Your task to perform on an android device: uninstall "Contacts" Image 0: 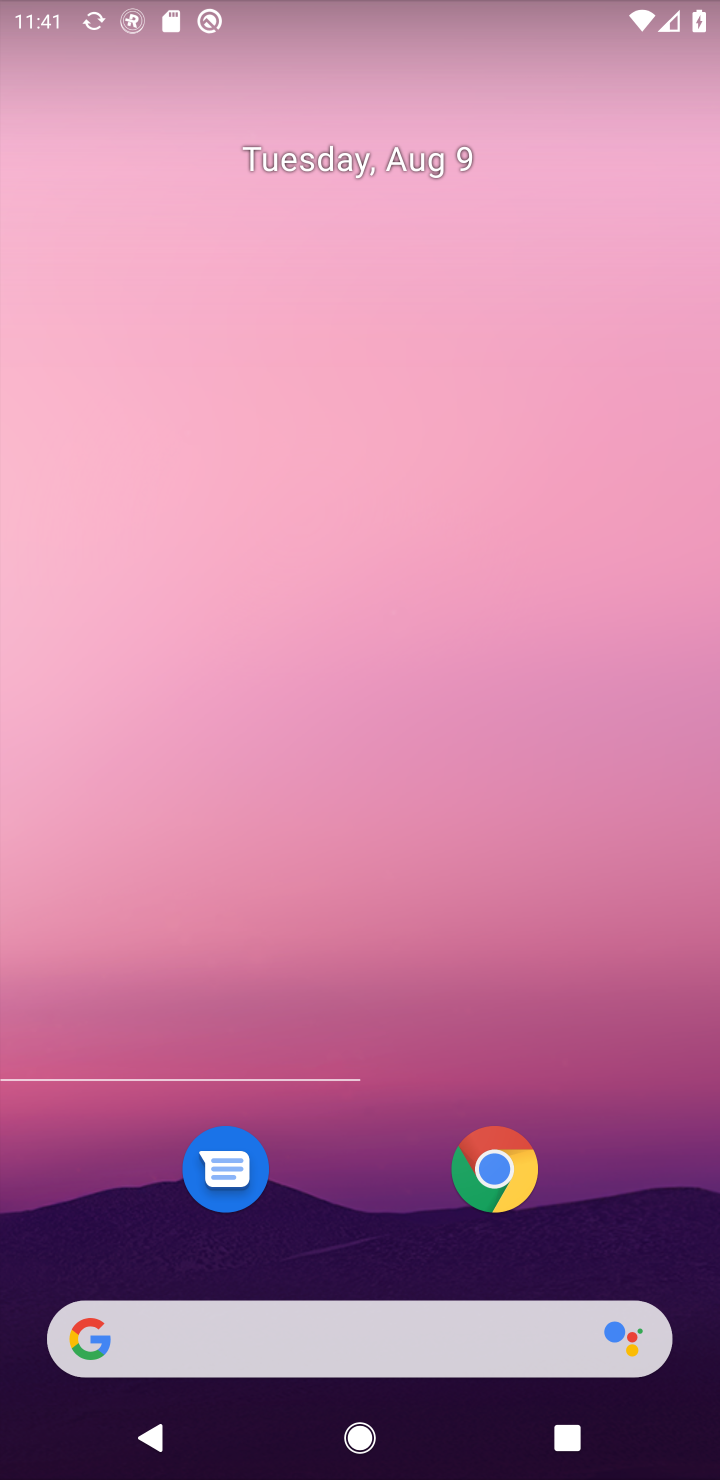
Step 0: press home button
Your task to perform on an android device: uninstall "Contacts" Image 1: 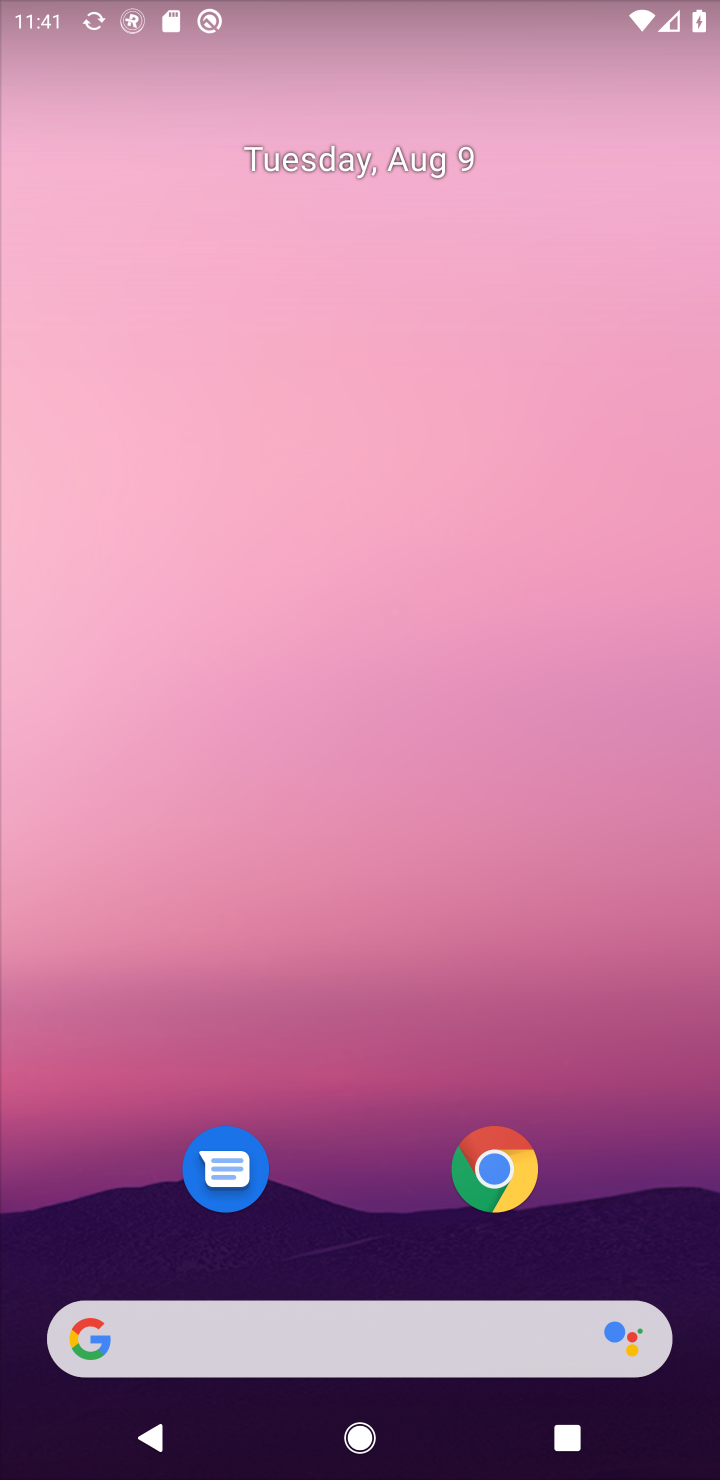
Step 1: drag from (618, 1117) to (598, 140)
Your task to perform on an android device: uninstall "Contacts" Image 2: 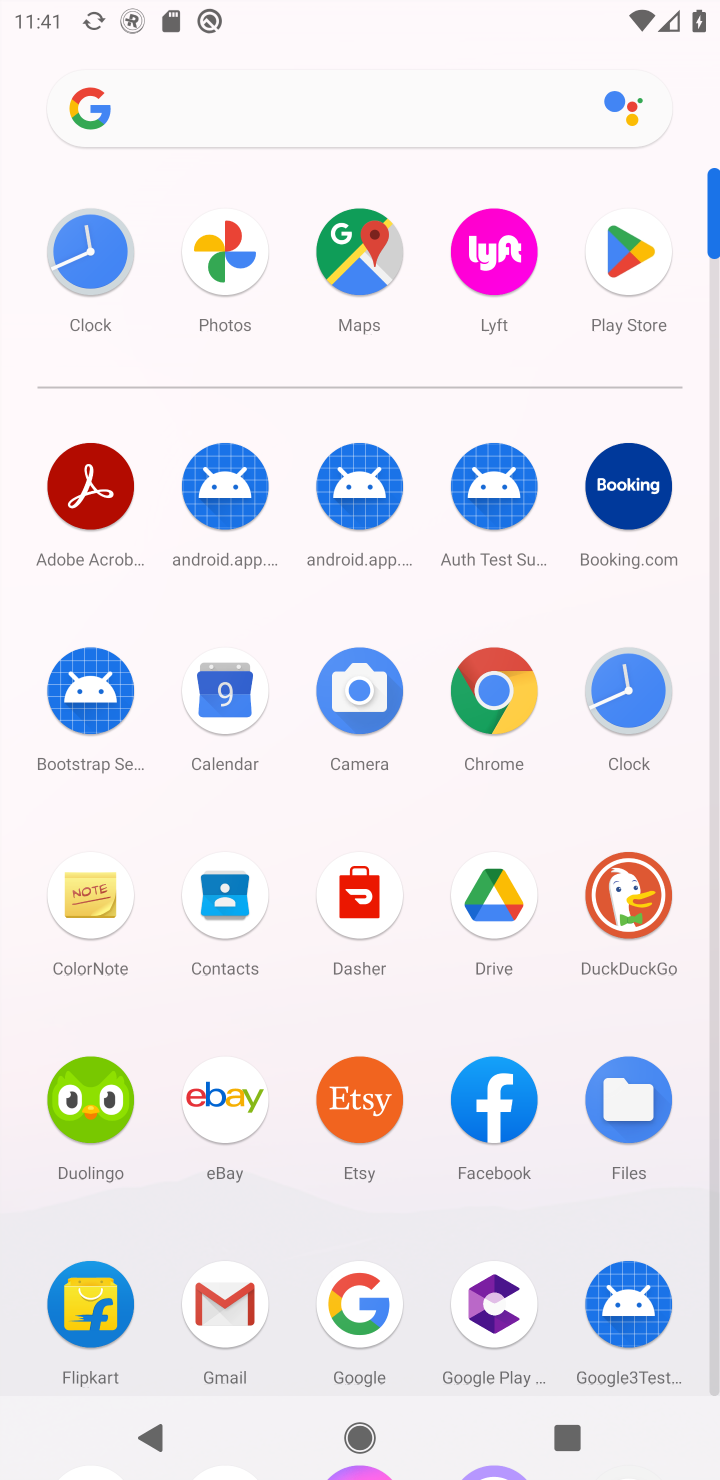
Step 2: click (640, 255)
Your task to perform on an android device: uninstall "Contacts" Image 3: 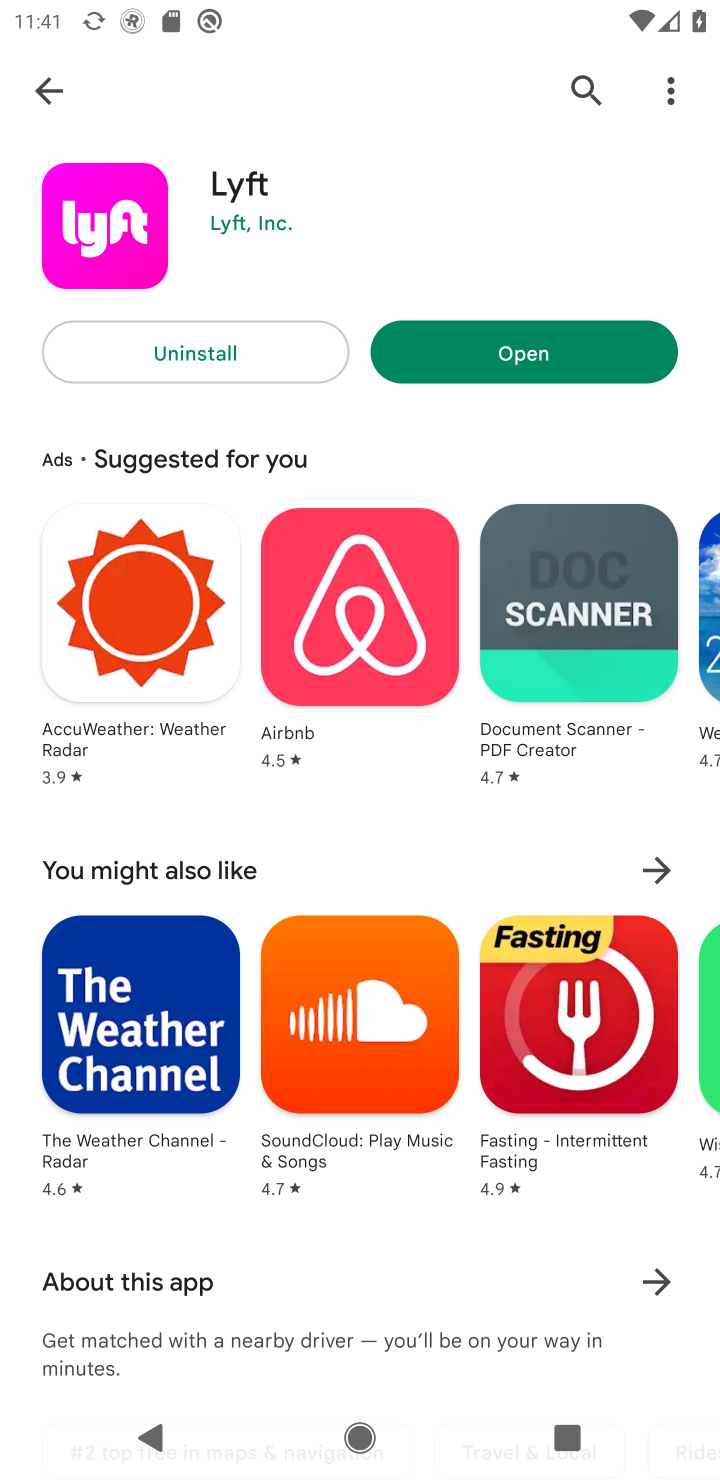
Step 3: click (568, 71)
Your task to perform on an android device: uninstall "Contacts" Image 4: 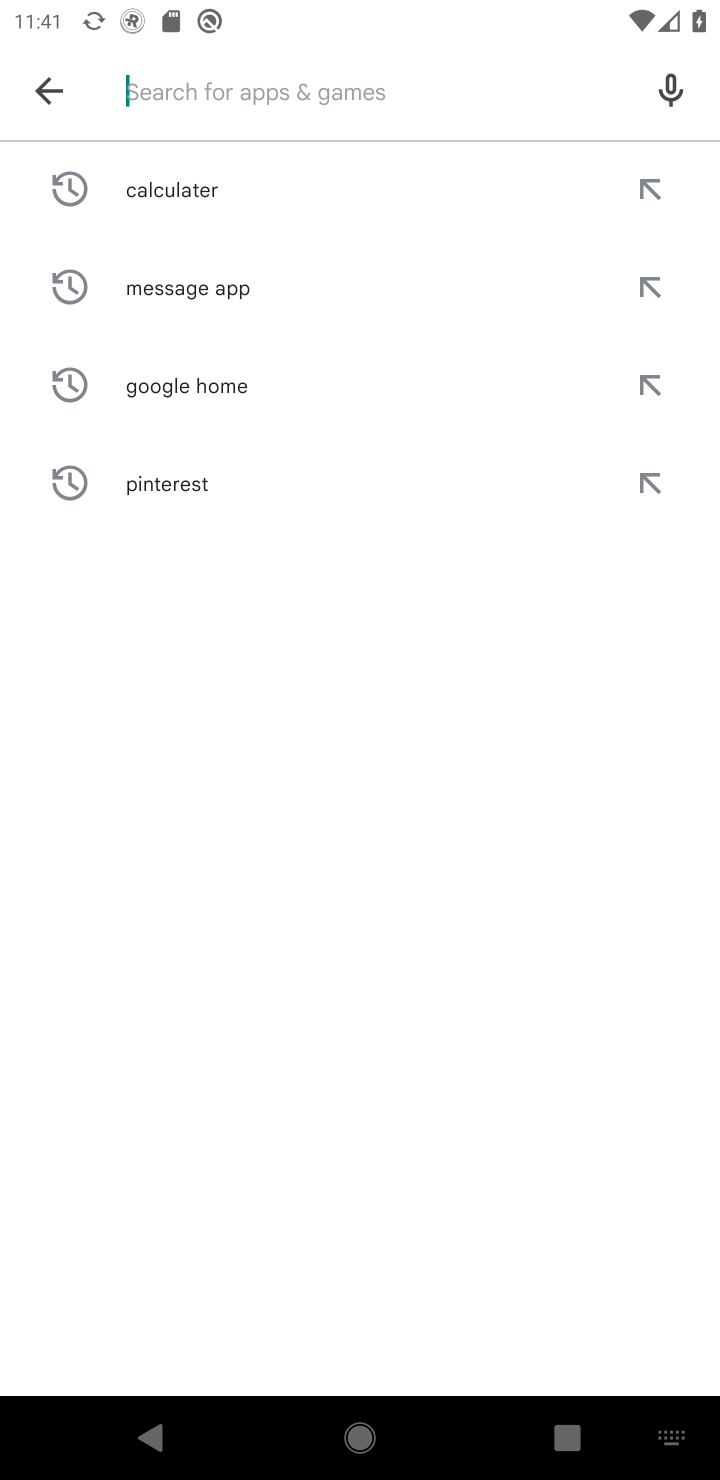
Step 4: type "contacts"
Your task to perform on an android device: uninstall "Contacts" Image 5: 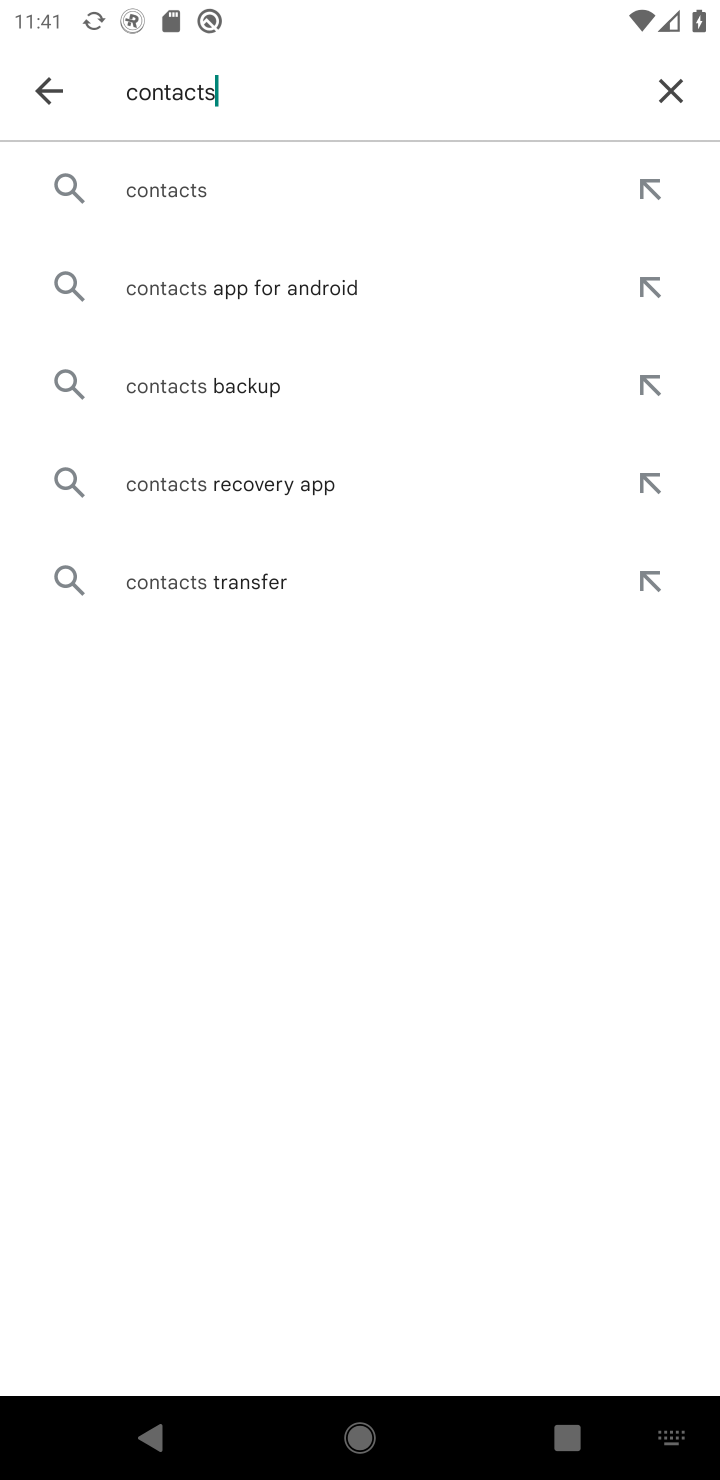
Step 5: click (189, 193)
Your task to perform on an android device: uninstall "Contacts" Image 6: 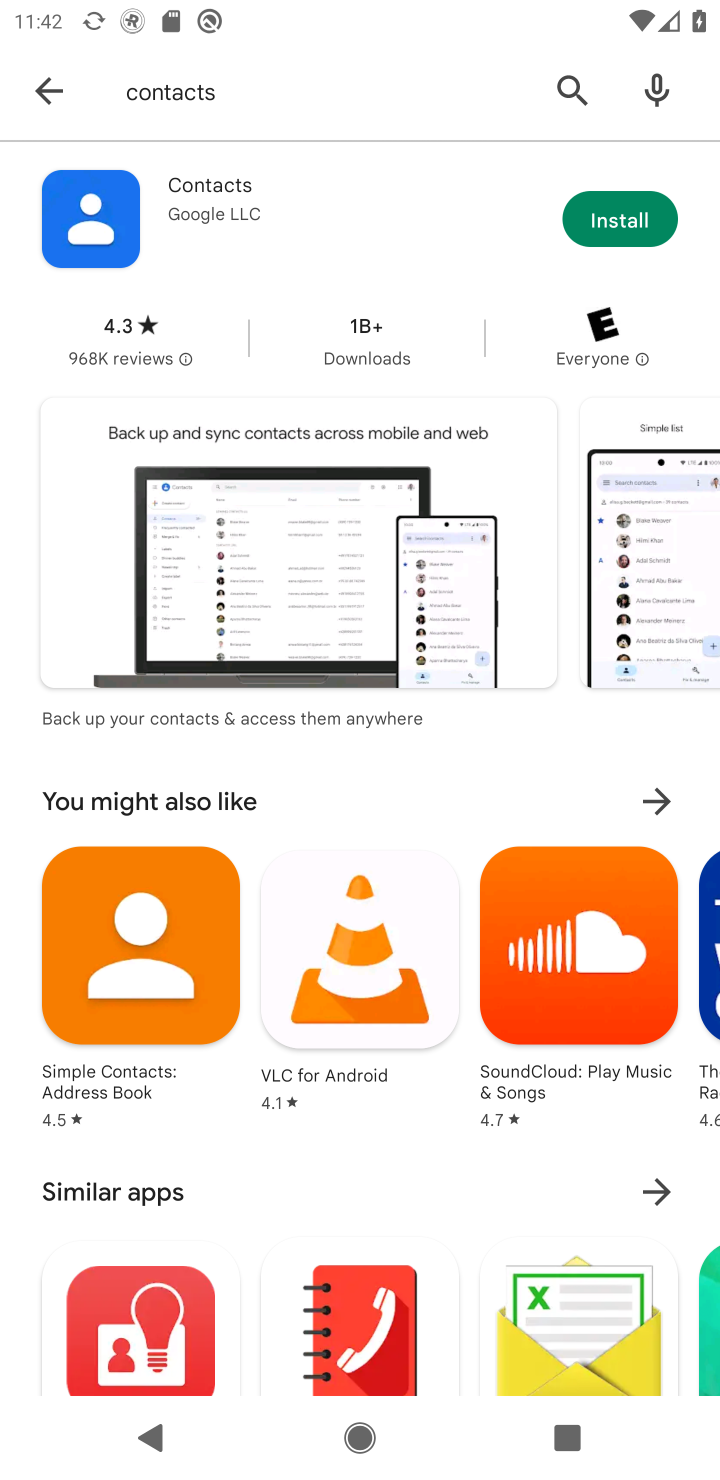
Step 6: task complete